Your task to perform on an android device: check google app version Image 0: 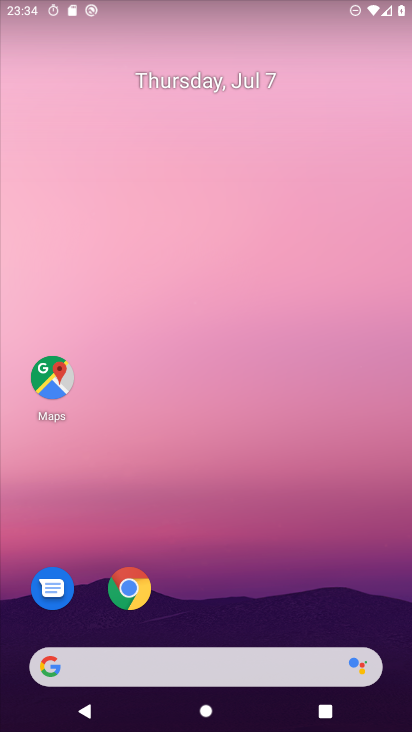
Step 0: drag from (316, 556) to (259, 81)
Your task to perform on an android device: check google app version Image 1: 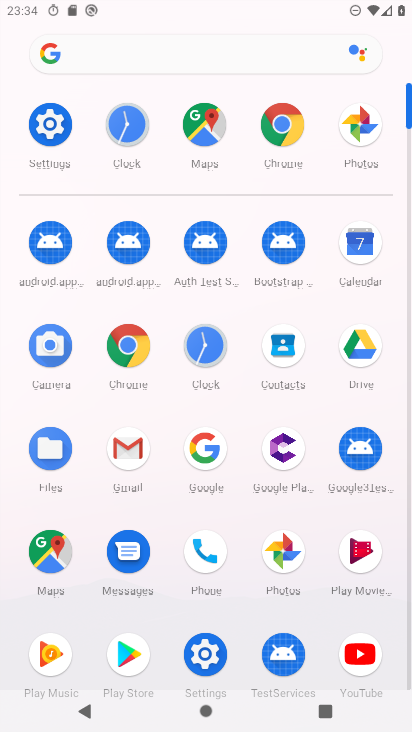
Step 1: click (211, 461)
Your task to perform on an android device: check google app version Image 2: 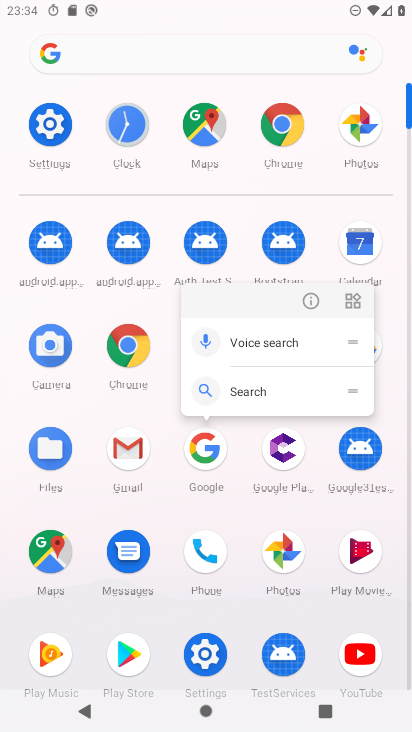
Step 2: click (309, 299)
Your task to perform on an android device: check google app version Image 3: 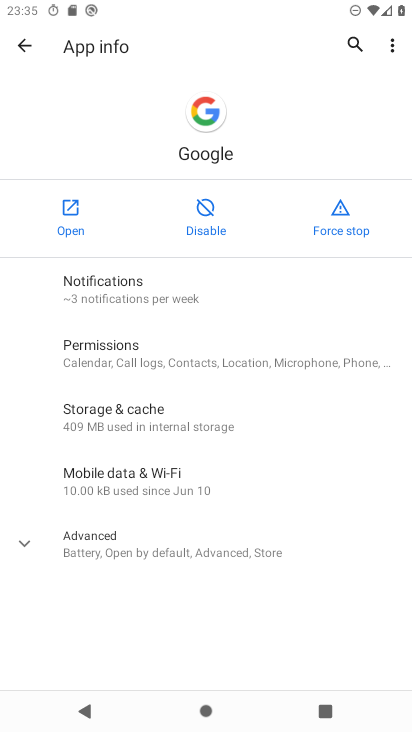
Step 3: click (145, 541)
Your task to perform on an android device: check google app version Image 4: 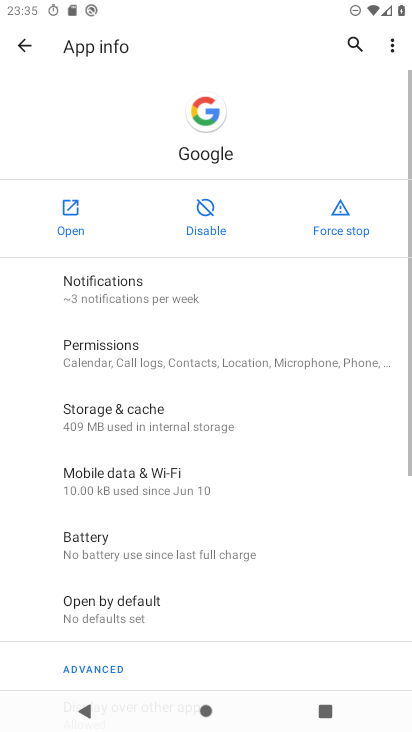
Step 4: task complete